Your task to perform on an android device: Open Google Maps and go to "Timeline" Image 0: 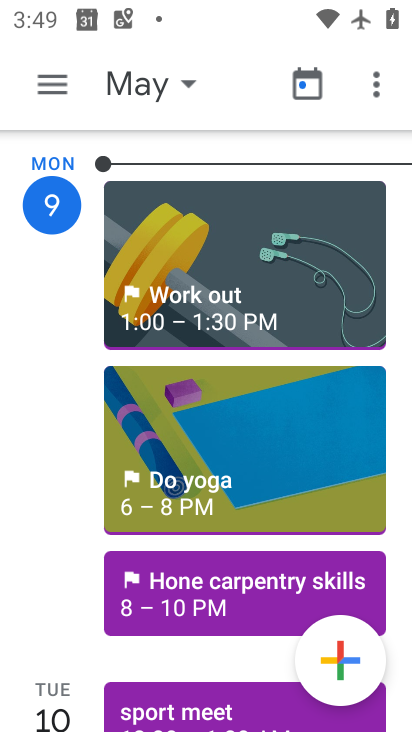
Step 0: press home button
Your task to perform on an android device: Open Google Maps and go to "Timeline" Image 1: 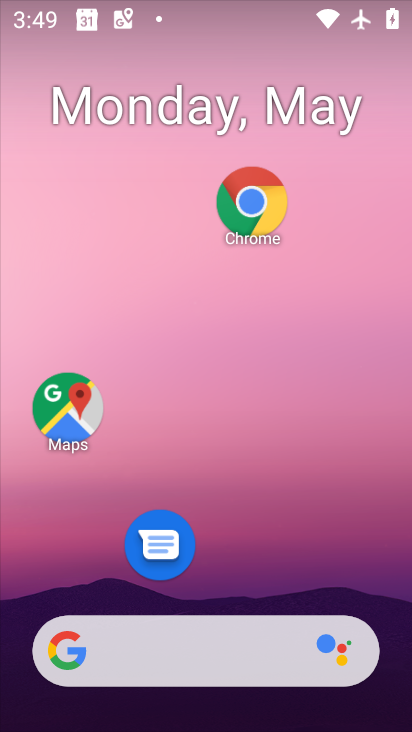
Step 1: click (82, 420)
Your task to perform on an android device: Open Google Maps and go to "Timeline" Image 2: 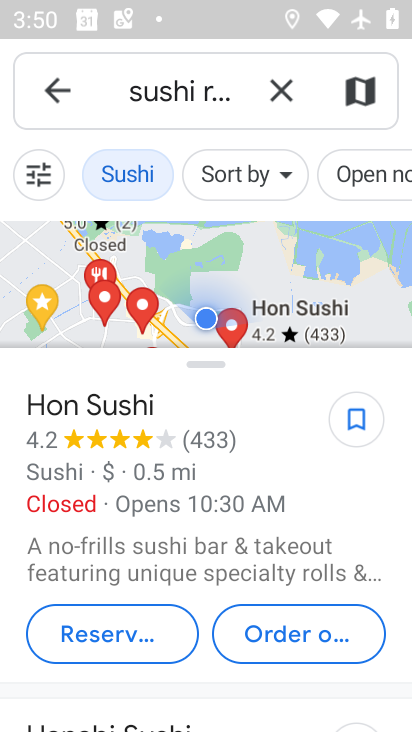
Step 2: click (56, 86)
Your task to perform on an android device: Open Google Maps and go to "Timeline" Image 3: 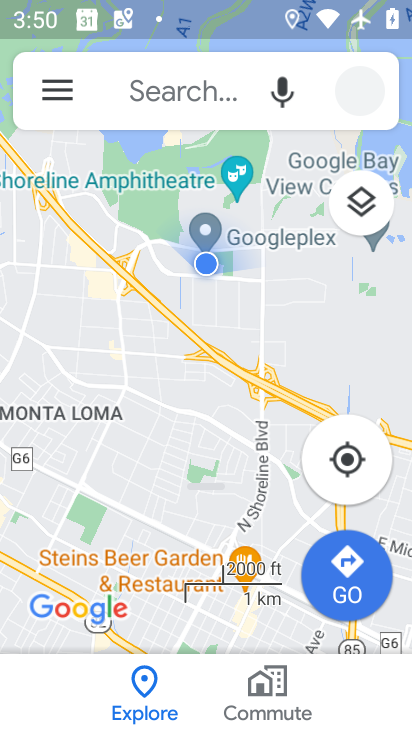
Step 3: click (56, 86)
Your task to perform on an android device: Open Google Maps and go to "Timeline" Image 4: 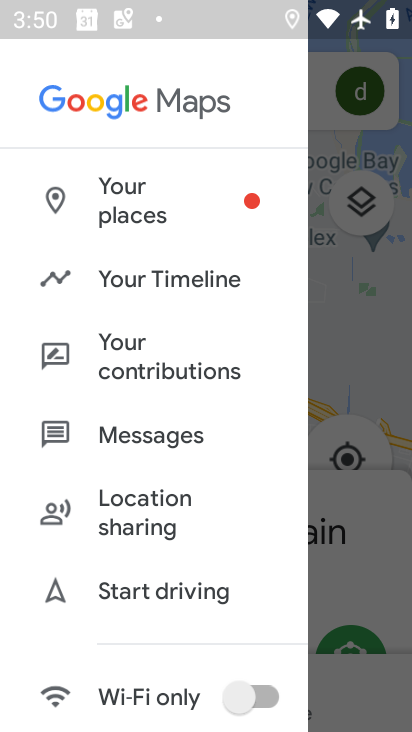
Step 4: click (168, 285)
Your task to perform on an android device: Open Google Maps and go to "Timeline" Image 5: 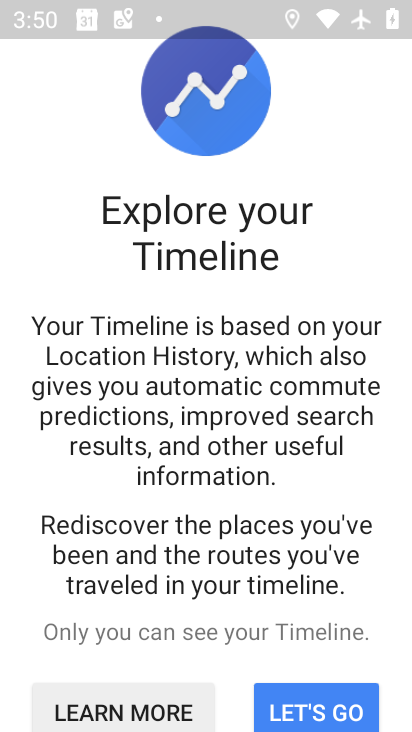
Step 5: click (325, 704)
Your task to perform on an android device: Open Google Maps and go to "Timeline" Image 6: 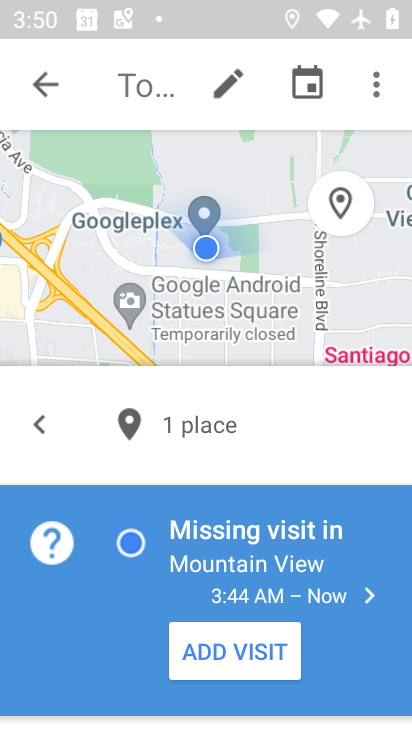
Step 6: task complete